Your task to perform on an android device: open app "PUBG MOBILE" (install if not already installed) Image 0: 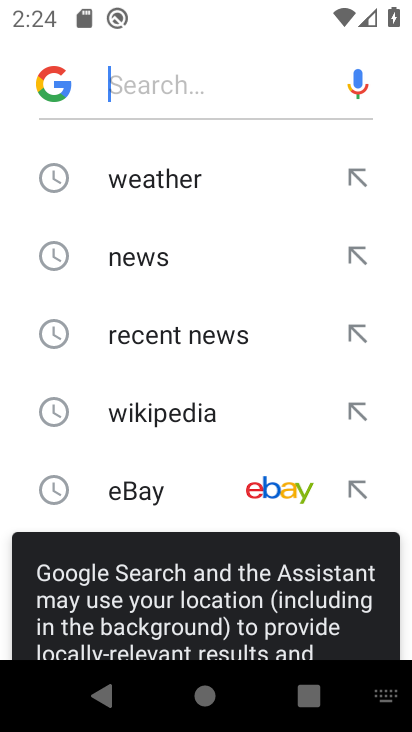
Step 0: press home button
Your task to perform on an android device: open app "PUBG MOBILE" (install if not already installed) Image 1: 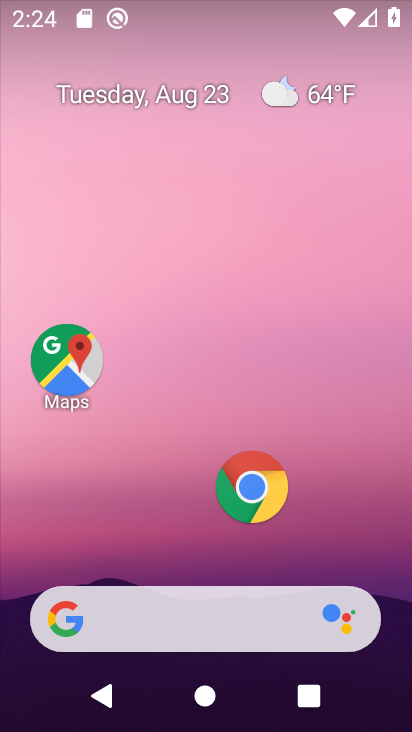
Step 1: drag from (205, 558) to (209, 164)
Your task to perform on an android device: open app "PUBG MOBILE" (install if not already installed) Image 2: 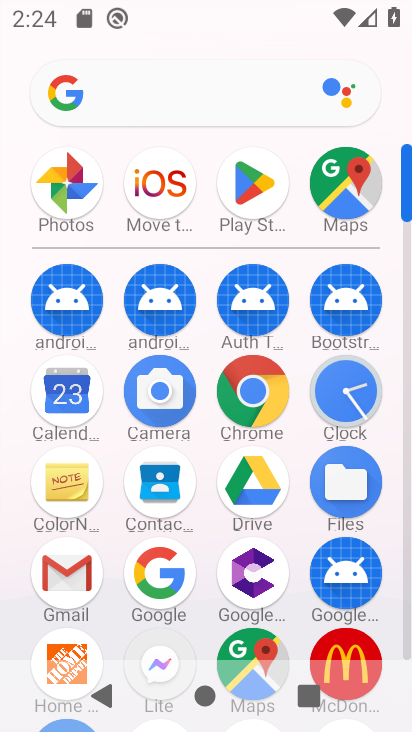
Step 2: click (265, 188)
Your task to perform on an android device: open app "PUBG MOBILE" (install if not already installed) Image 3: 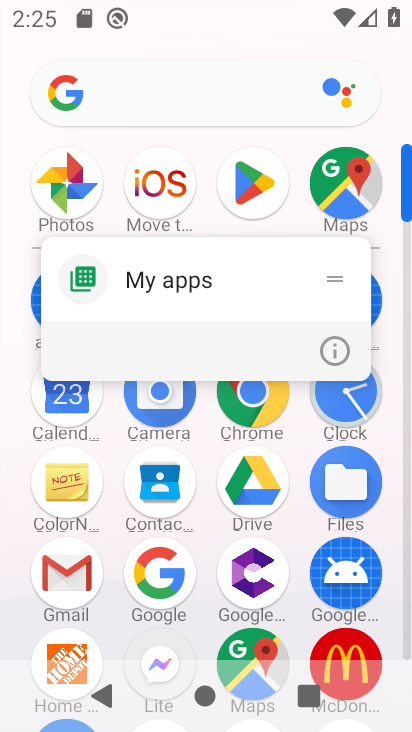
Step 3: click (238, 178)
Your task to perform on an android device: open app "PUBG MOBILE" (install if not already installed) Image 4: 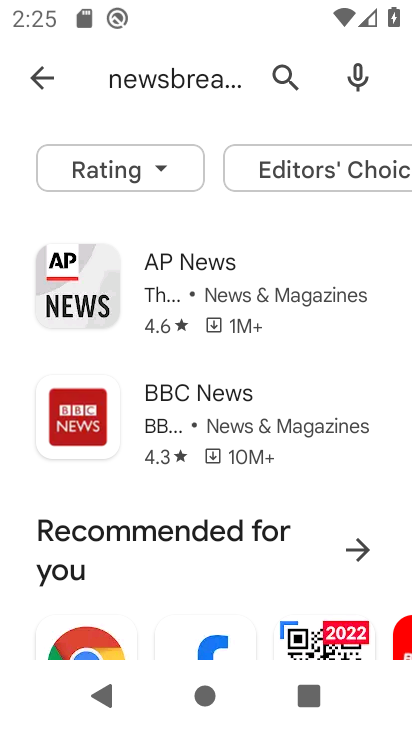
Step 4: click (44, 77)
Your task to perform on an android device: open app "PUBG MOBILE" (install if not already installed) Image 5: 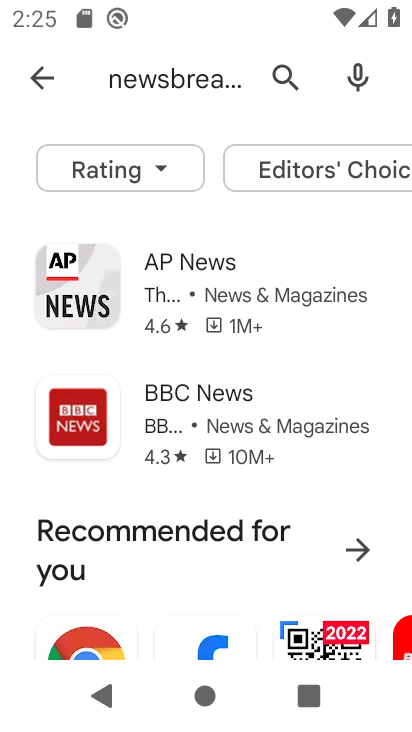
Step 5: click (19, 70)
Your task to perform on an android device: open app "PUBG MOBILE" (install if not already installed) Image 6: 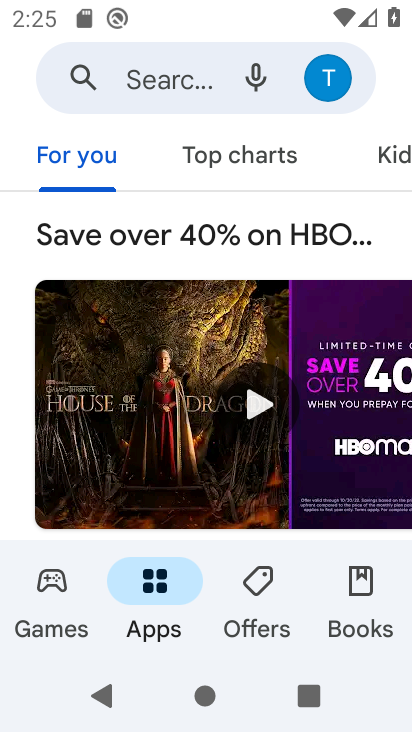
Step 6: click (206, 102)
Your task to perform on an android device: open app "PUBG MOBILE" (install if not already installed) Image 7: 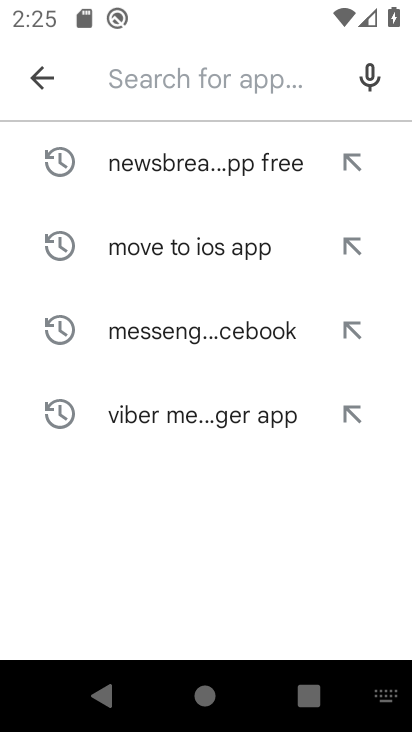
Step 7: type "PUBG MOBILE "
Your task to perform on an android device: open app "PUBG MOBILE" (install if not already installed) Image 8: 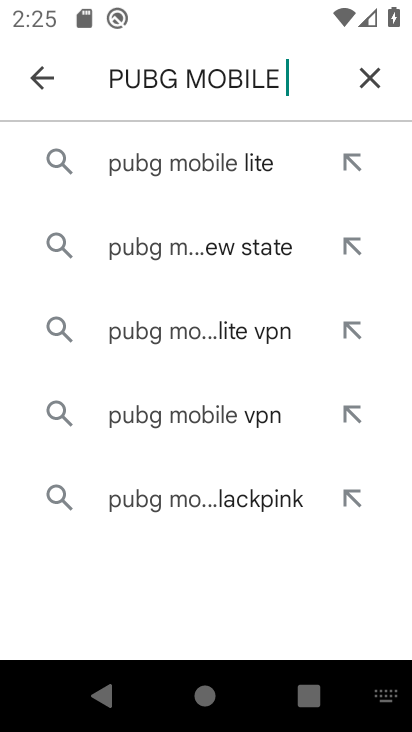
Step 8: click (187, 171)
Your task to perform on an android device: open app "PUBG MOBILE" (install if not already installed) Image 9: 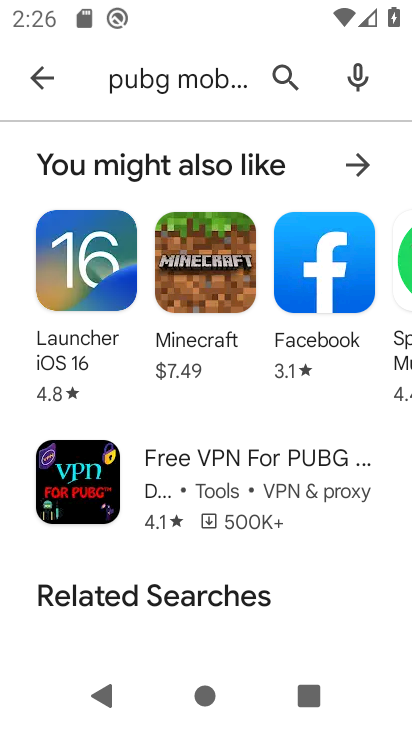
Step 9: click (286, 63)
Your task to perform on an android device: open app "PUBG MOBILE" (install if not already installed) Image 10: 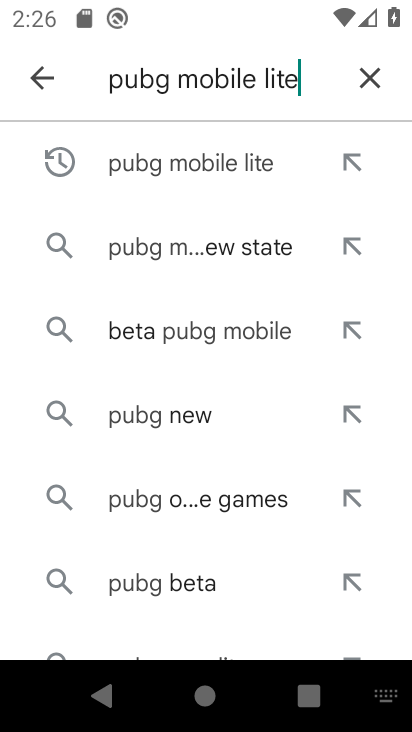
Step 10: click (188, 171)
Your task to perform on an android device: open app "PUBG MOBILE" (install if not already installed) Image 11: 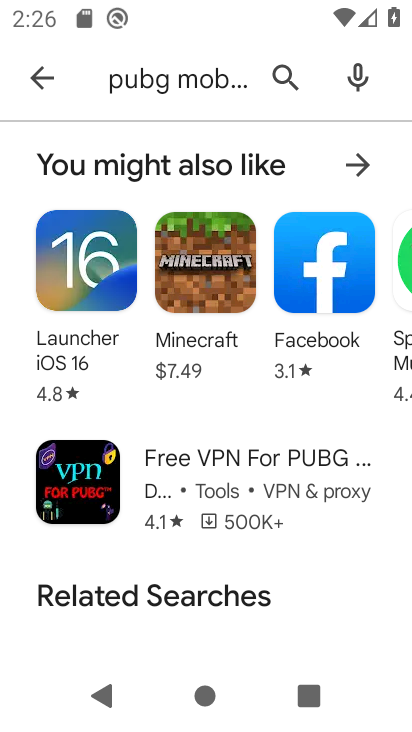
Step 11: drag from (157, 558) to (196, 209)
Your task to perform on an android device: open app "PUBG MOBILE" (install if not already installed) Image 12: 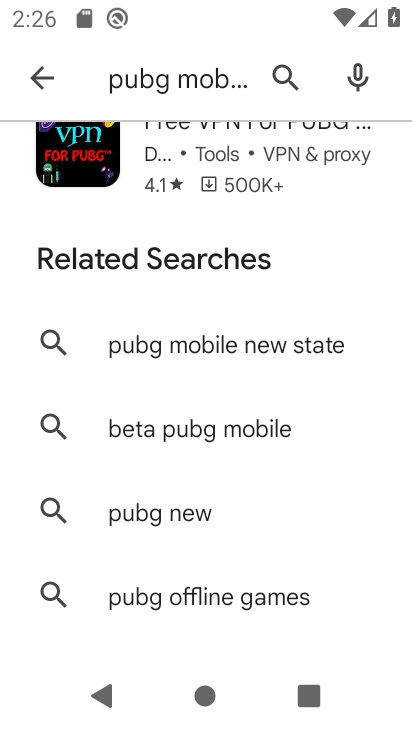
Step 12: drag from (164, 514) to (187, 394)
Your task to perform on an android device: open app "PUBG MOBILE" (install if not already installed) Image 13: 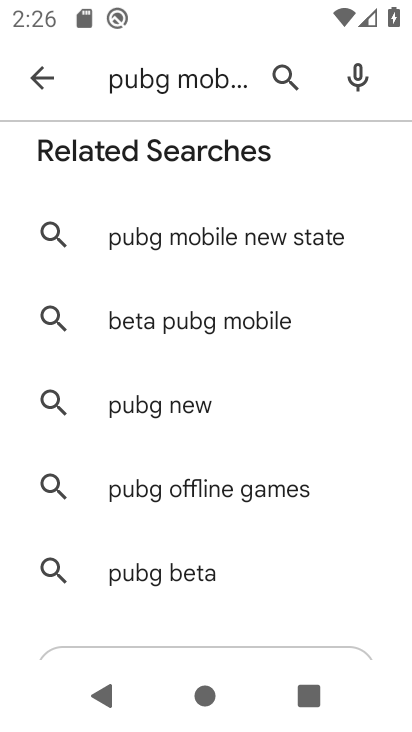
Step 13: click (224, 239)
Your task to perform on an android device: open app "PUBG MOBILE" (install if not already installed) Image 14: 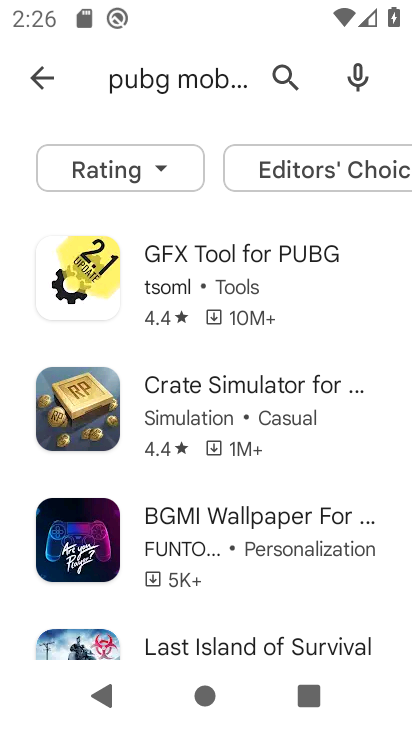
Step 14: task complete